Your task to perform on an android device: Open Amazon Image 0: 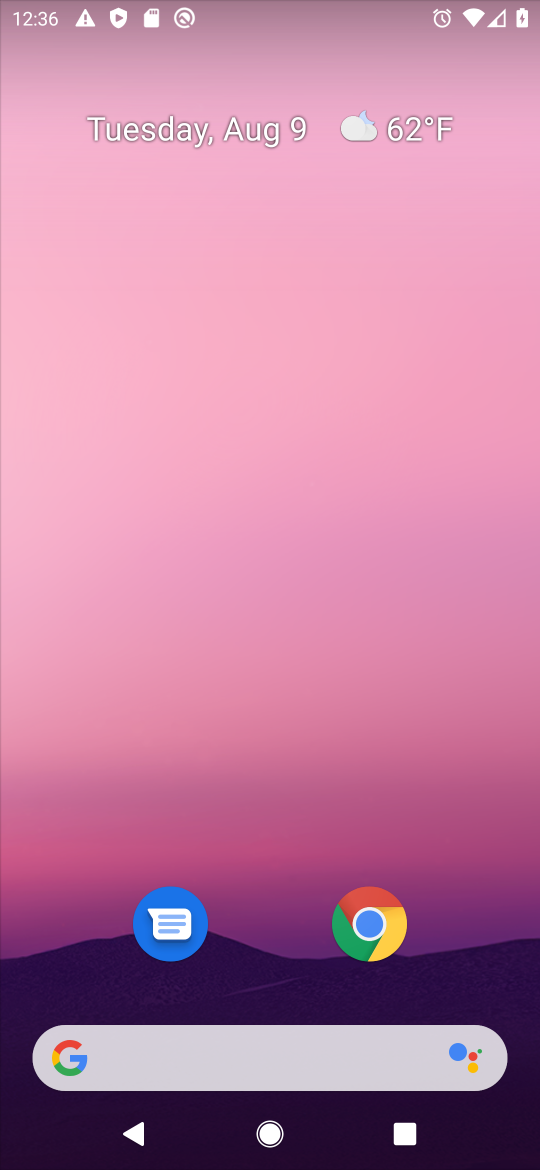
Step 0: drag from (291, 990) to (227, 135)
Your task to perform on an android device: Open Amazon Image 1: 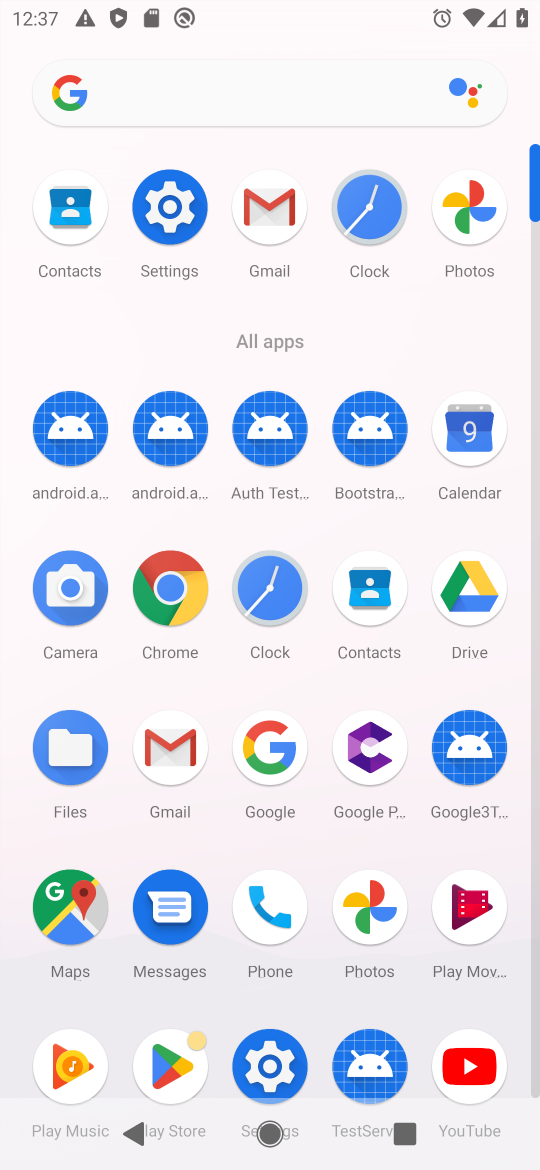
Step 1: click (164, 604)
Your task to perform on an android device: Open Amazon Image 2: 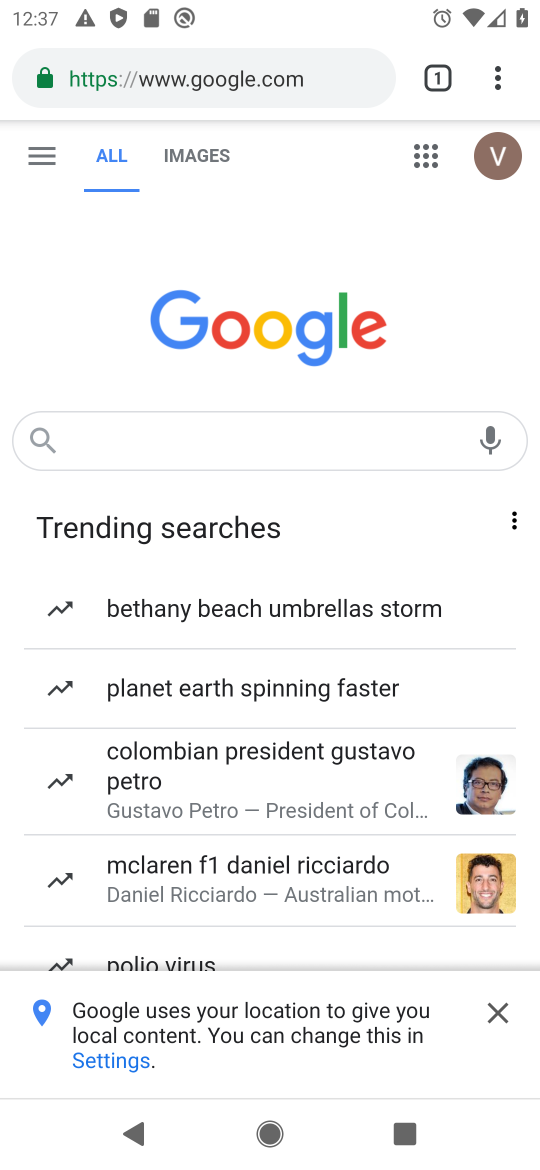
Step 2: click (266, 60)
Your task to perform on an android device: Open Amazon Image 3: 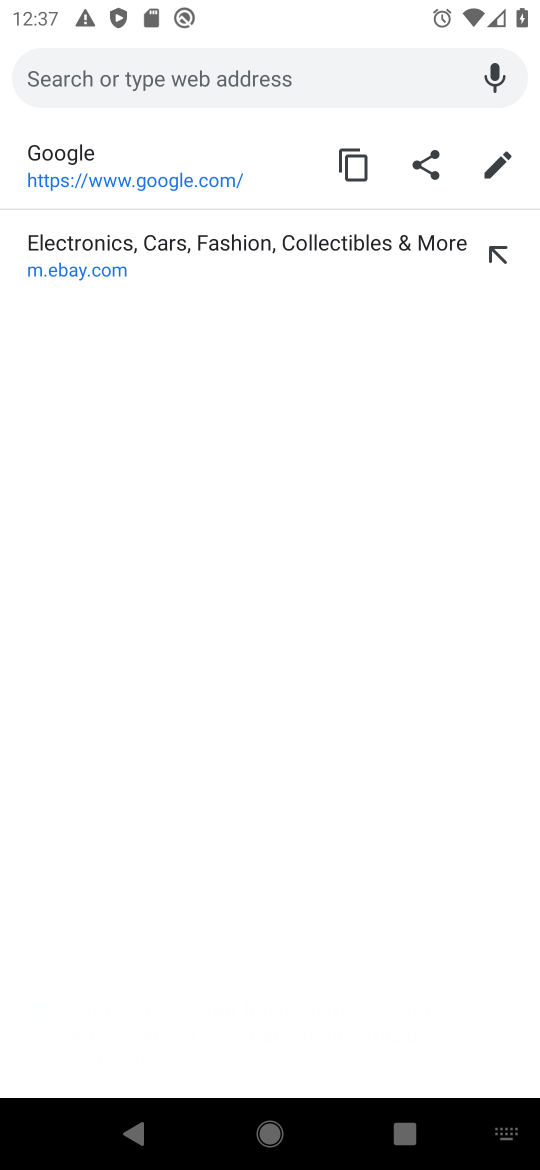
Step 3: click (422, 68)
Your task to perform on an android device: Open Amazon Image 4: 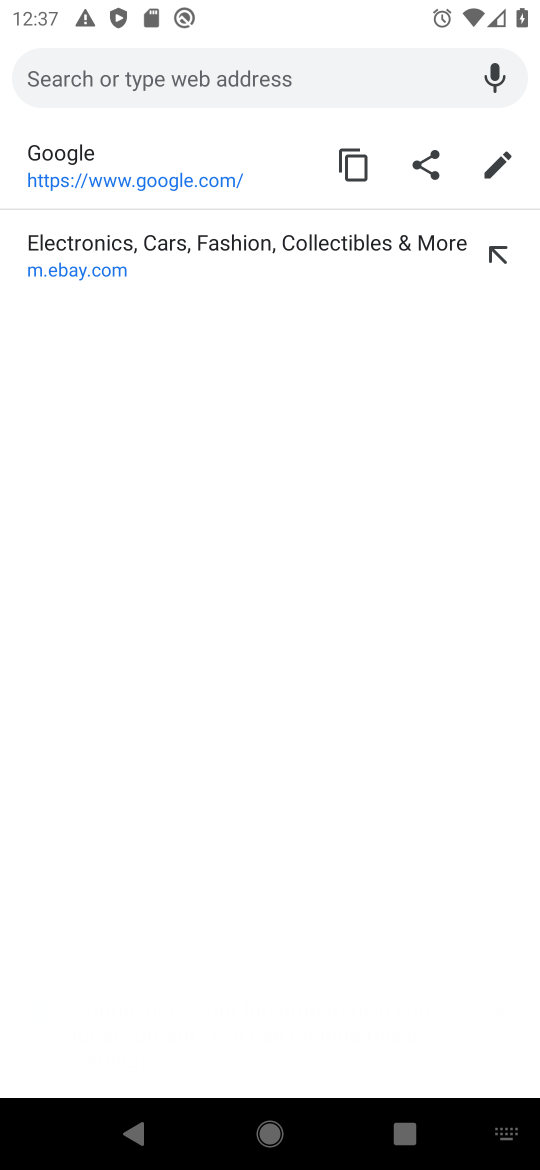
Step 4: type "amazon"
Your task to perform on an android device: Open Amazon Image 5: 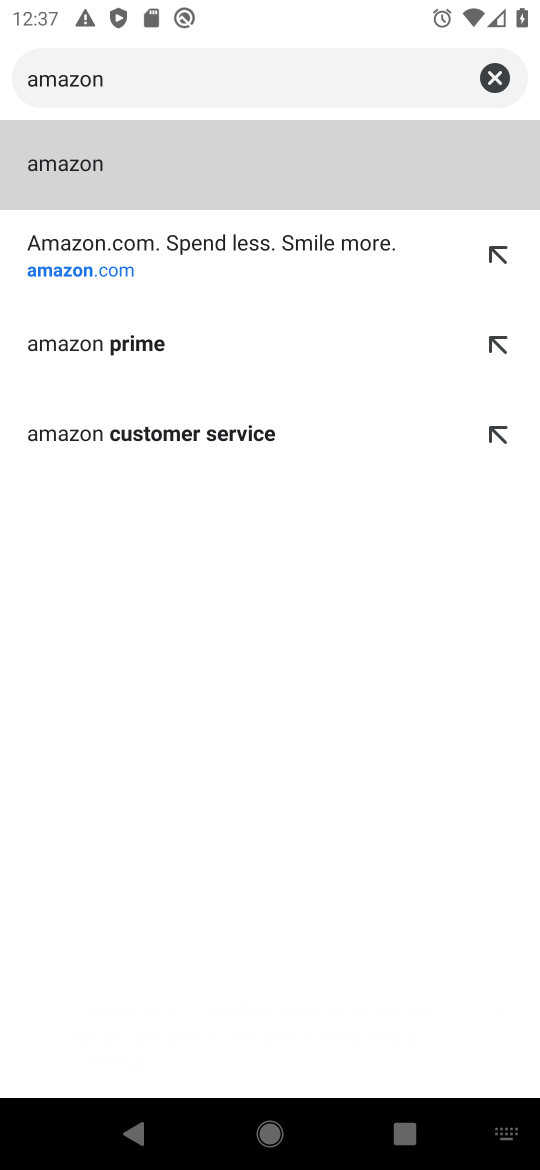
Step 5: click (147, 239)
Your task to perform on an android device: Open Amazon Image 6: 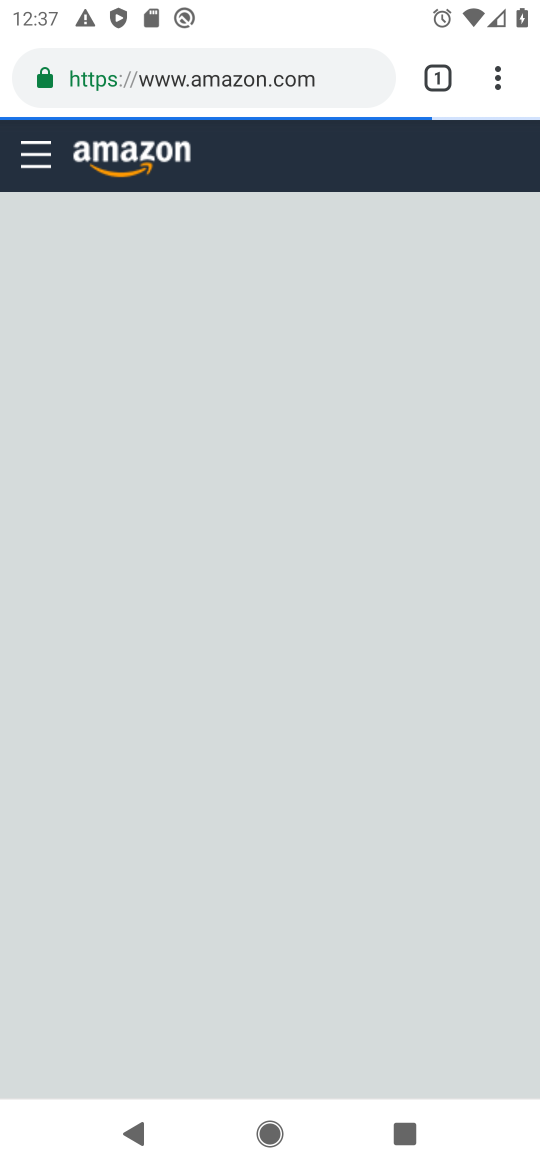
Step 6: task complete